Your task to perform on an android device: change text size in settings app Image 0: 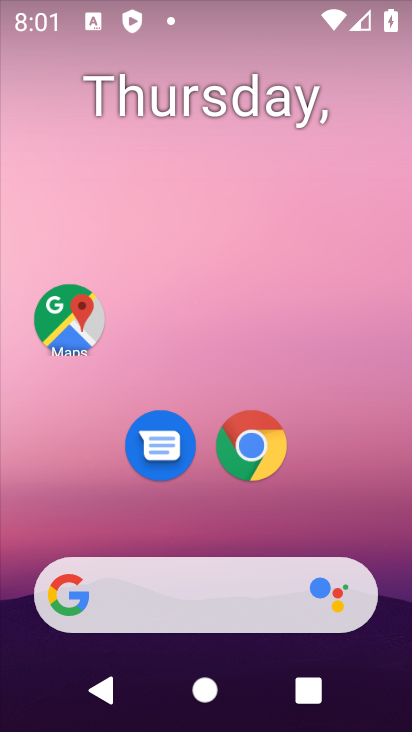
Step 0: drag from (65, 722) to (312, 183)
Your task to perform on an android device: change text size in settings app Image 1: 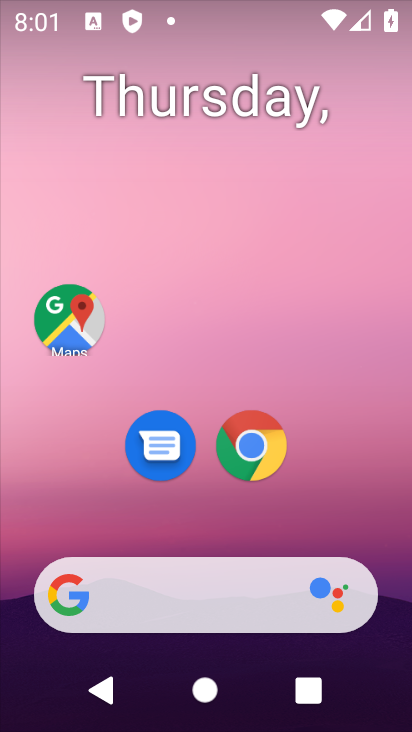
Step 1: drag from (34, 538) to (217, 156)
Your task to perform on an android device: change text size in settings app Image 2: 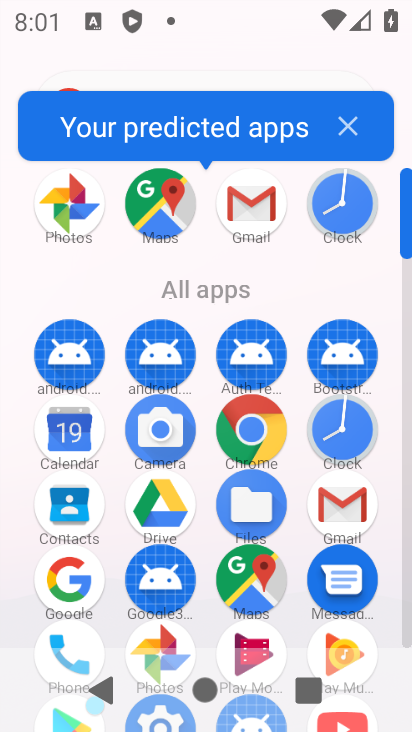
Step 2: drag from (30, 509) to (166, 233)
Your task to perform on an android device: change text size in settings app Image 3: 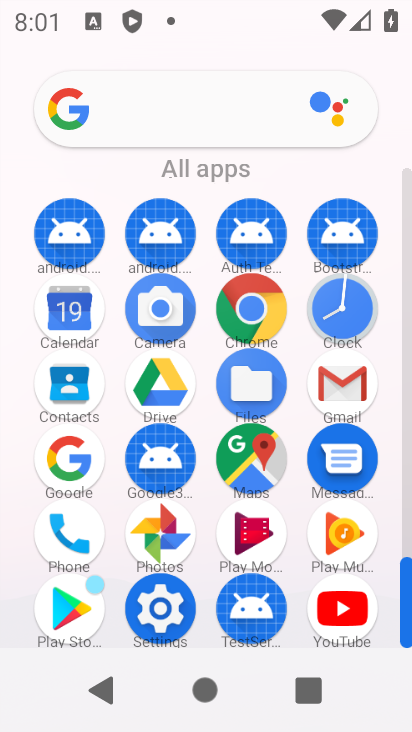
Step 3: click (148, 613)
Your task to perform on an android device: change text size in settings app Image 4: 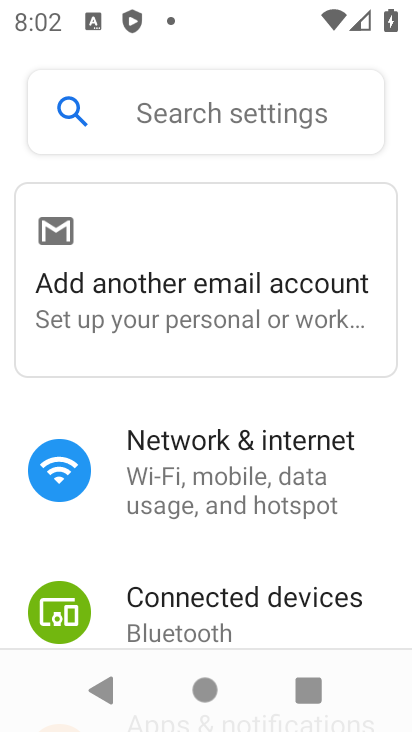
Step 4: drag from (31, 534) to (178, 243)
Your task to perform on an android device: change text size in settings app Image 5: 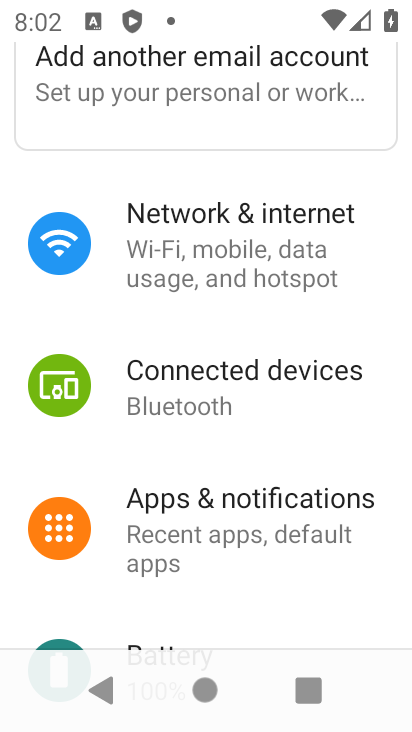
Step 5: drag from (18, 483) to (217, 167)
Your task to perform on an android device: change text size in settings app Image 6: 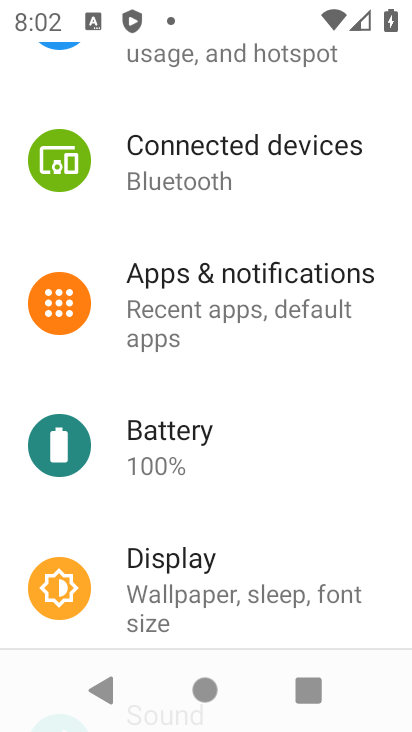
Step 6: click (216, 605)
Your task to perform on an android device: change text size in settings app Image 7: 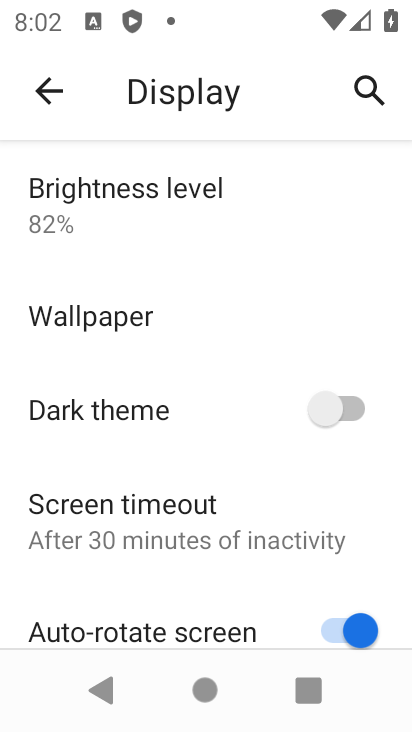
Step 7: drag from (2, 650) to (261, 155)
Your task to perform on an android device: change text size in settings app Image 8: 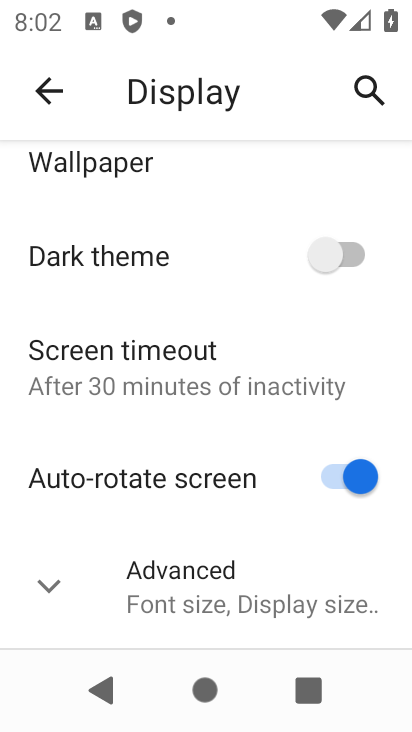
Step 8: click (183, 578)
Your task to perform on an android device: change text size in settings app Image 9: 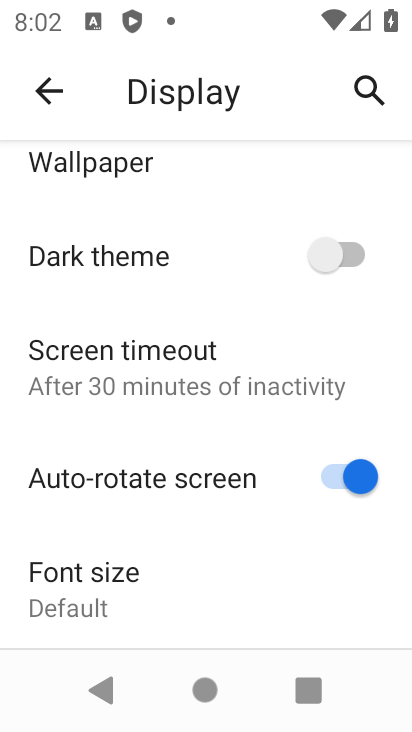
Step 9: drag from (239, 319) to (299, 145)
Your task to perform on an android device: change text size in settings app Image 10: 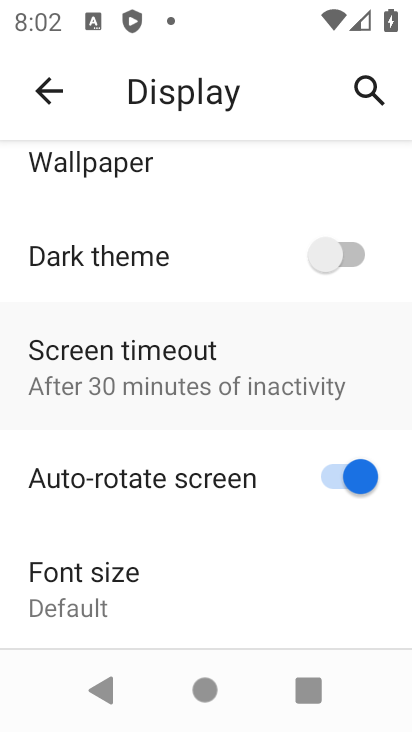
Step 10: click (99, 598)
Your task to perform on an android device: change text size in settings app Image 11: 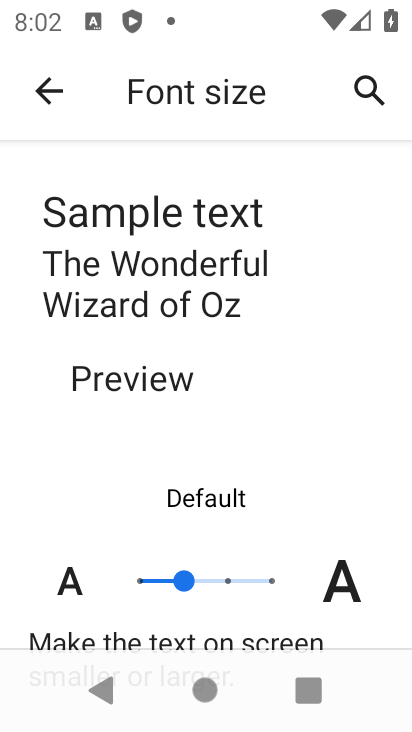
Step 11: click (231, 577)
Your task to perform on an android device: change text size in settings app Image 12: 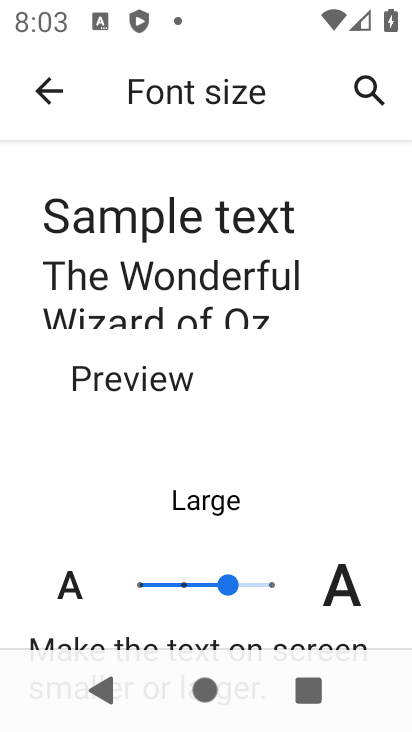
Step 12: task complete